Your task to perform on an android device: clear history in the chrome app Image 0: 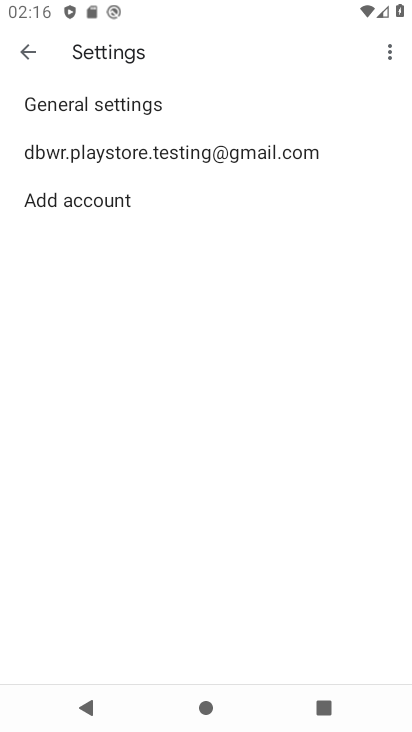
Step 0: press home button
Your task to perform on an android device: clear history in the chrome app Image 1: 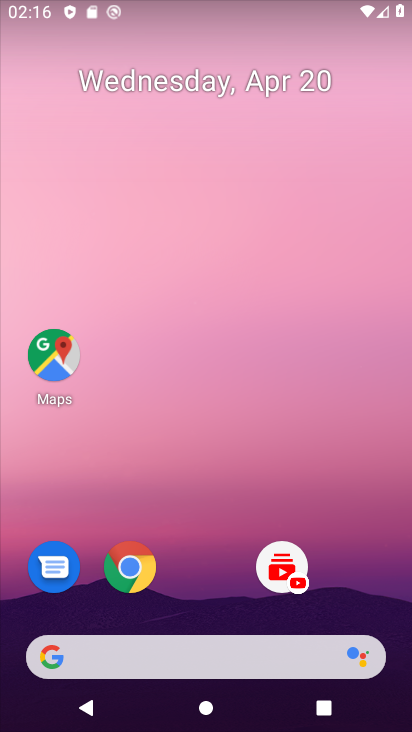
Step 1: click (133, 568)
Your task to perform on an android device: clear history in the chrome app Image 2: 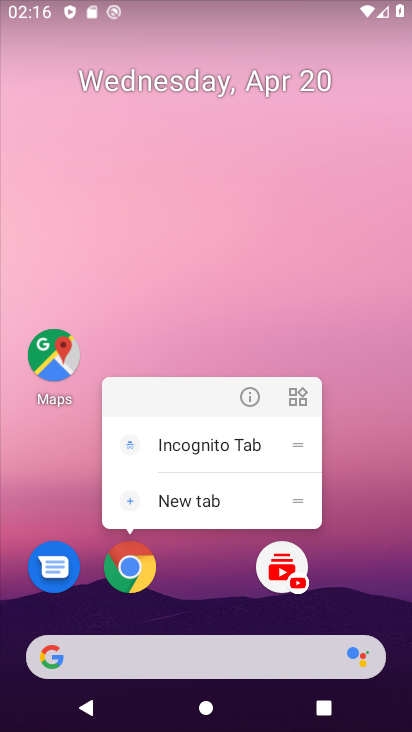
Step 2: click (248, 395)
Your task to perform on an android device: clear history in the chrome app Image 3: 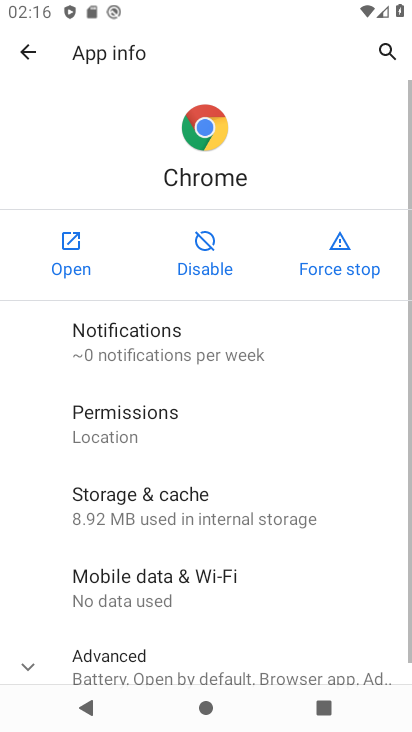
Step 3: click (77, 285)
Your task to perform on an android device: clear history in the chrome app Image 4: 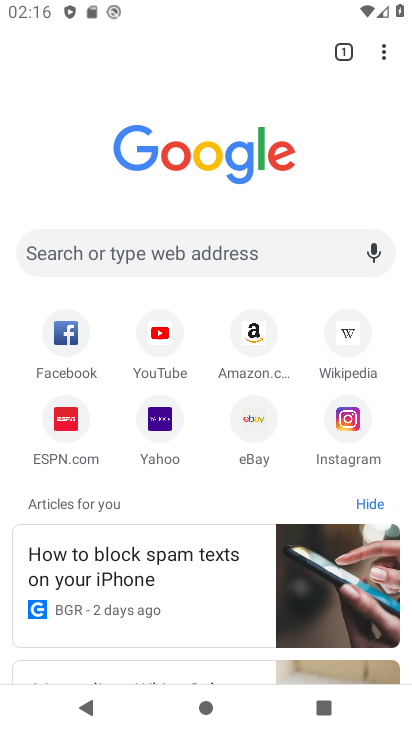
Step 4: task complete